Your task to perform on an android device: Search for good BBQ restaurants Image 0: 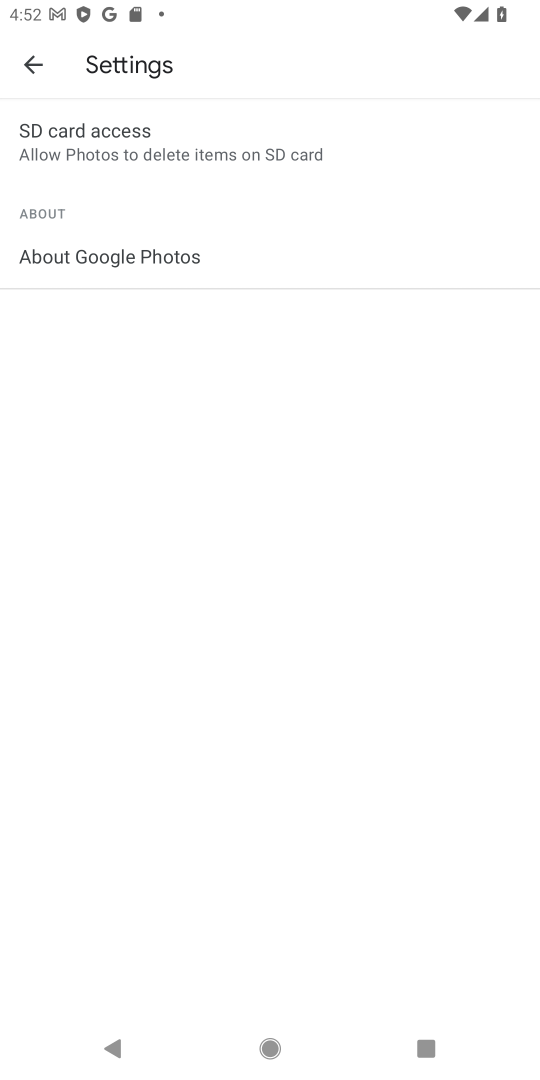
Step 0: press home button
Your task to perform on an android device: Search for good BBQ restaurants Image 1: 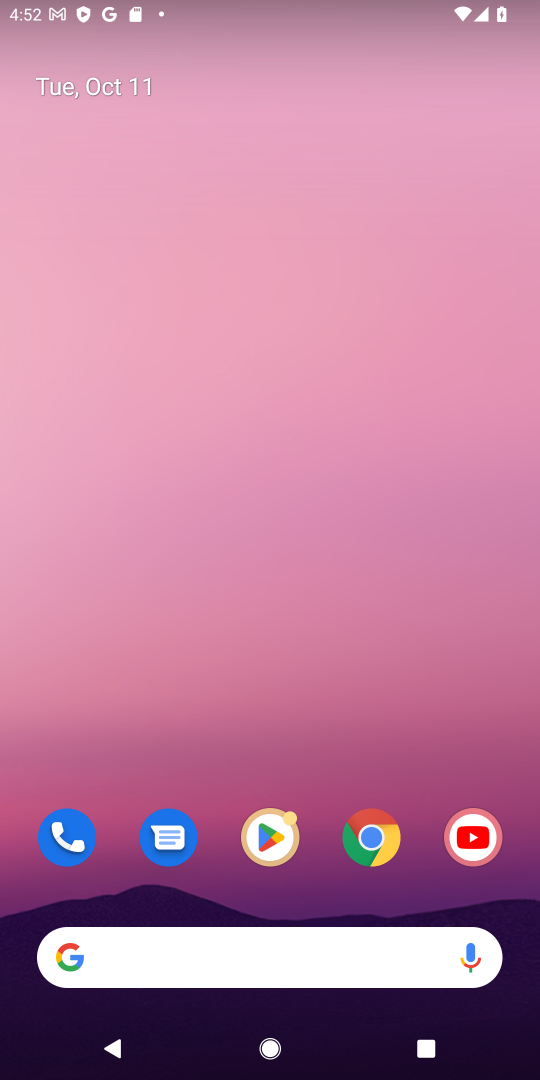
Step 1: drag from (269, 930) to (489, 313)
Your task to perform on an android device: Search for good BBQ restaurants Image 2: 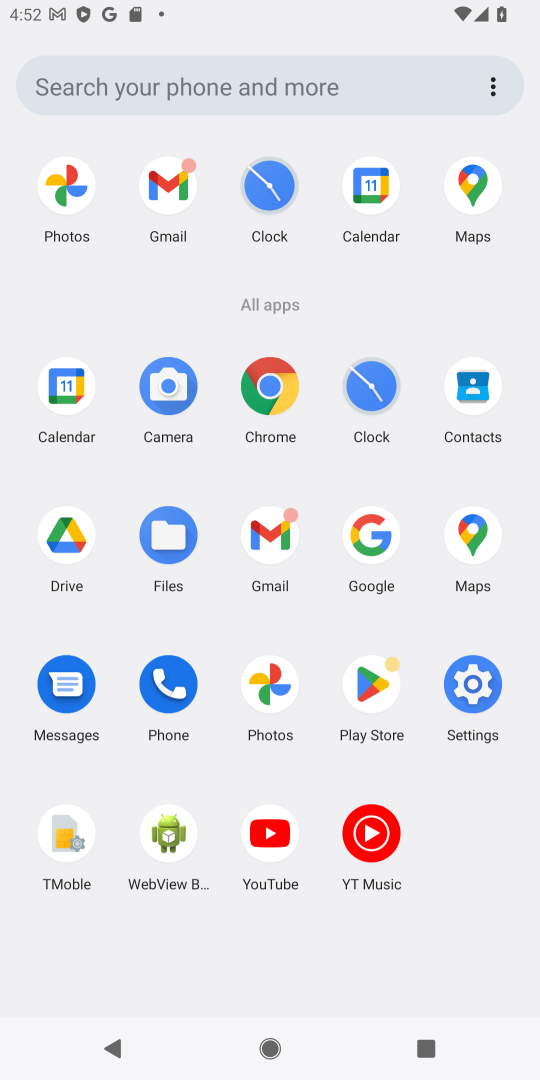
Step 2: click (297, 386)
Your task to perform on an android device: Search for good BBQ restaurants Image 3: 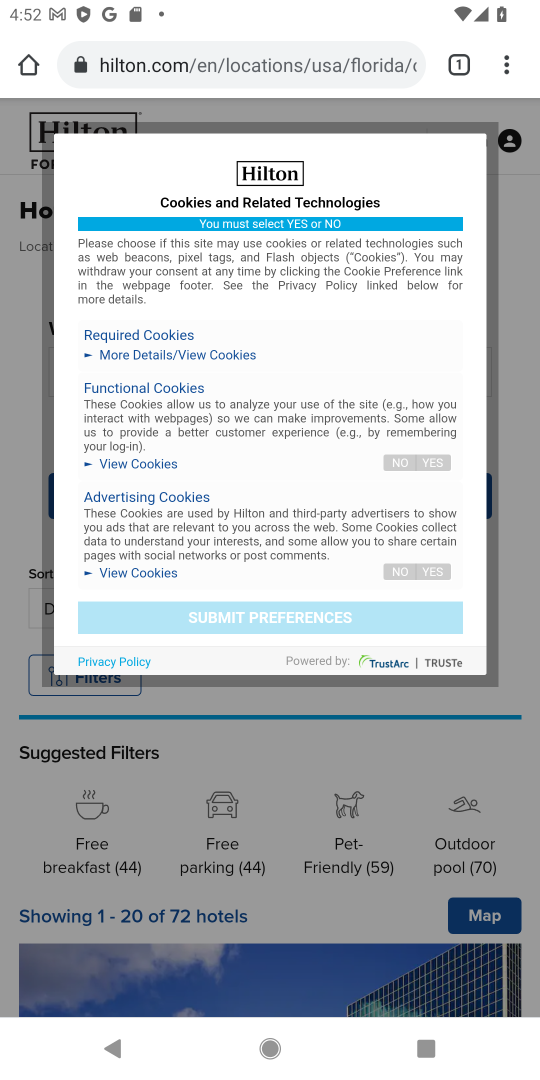
Step 3: press back button
Your task to perform on an android device: Search for good BBQ restaurants Image 4: 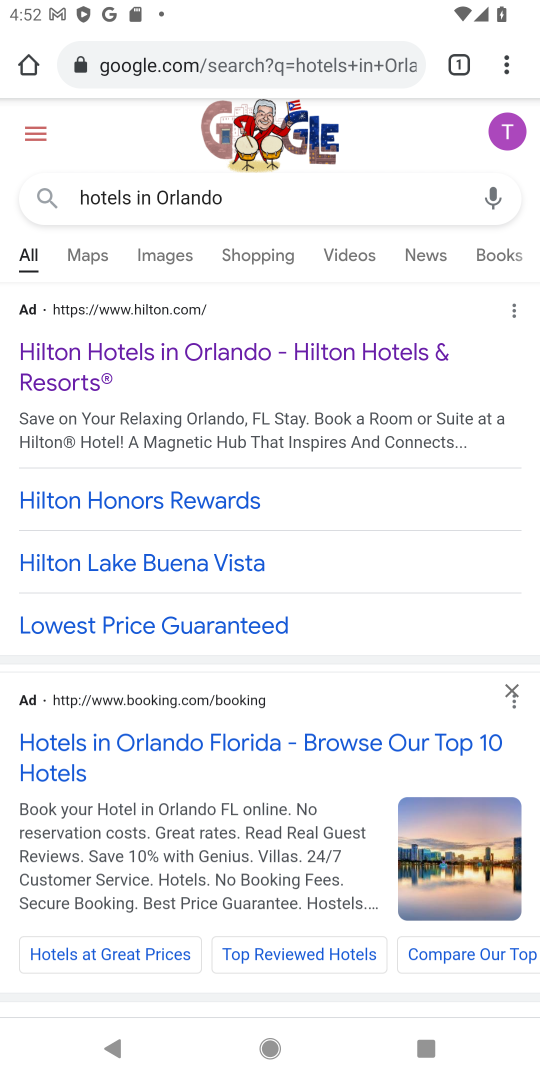
Step 4: click (272, 62)
Your task to perform on an android device: Search for good BBQ restaurants Image 5: 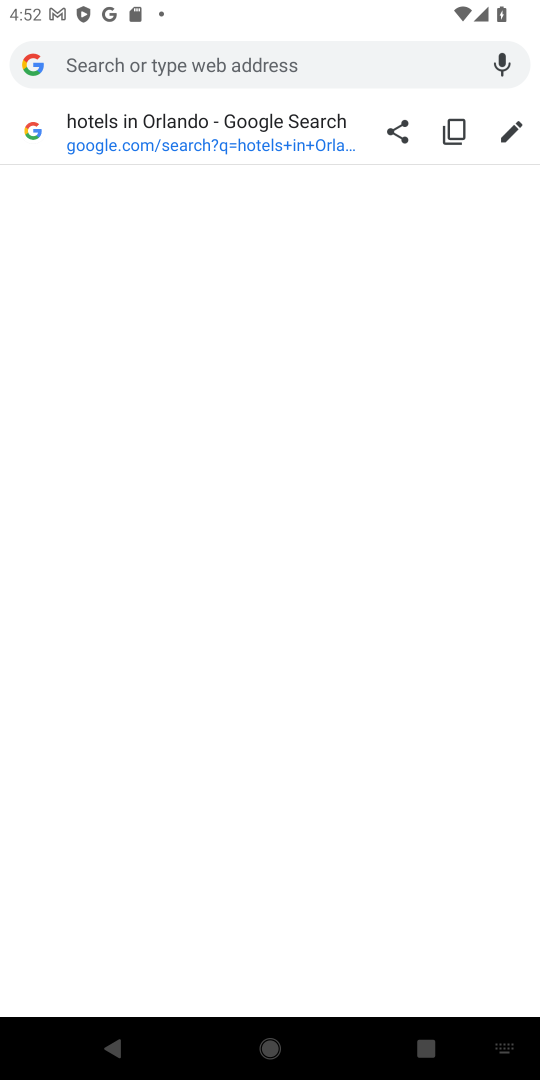
Step 5: drag from (296, 1054) to (539, 776)
Your task to perform on an android device: Search for good BBQ restaurants Image 6: 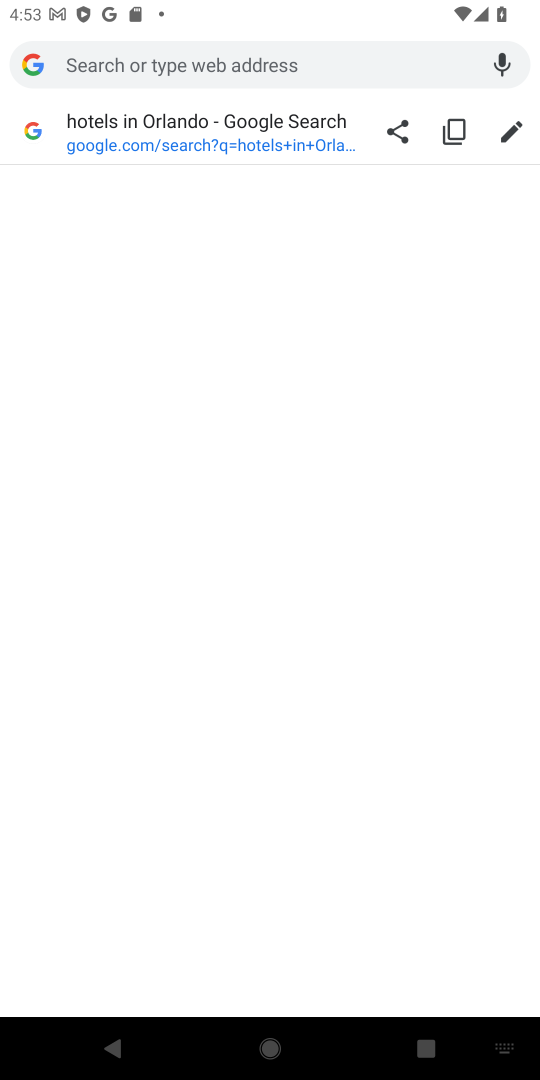
Step 6: type "good BBQ restaurants"
Your task to perform on an android device: Search for good BBQ restaurants Image 7: 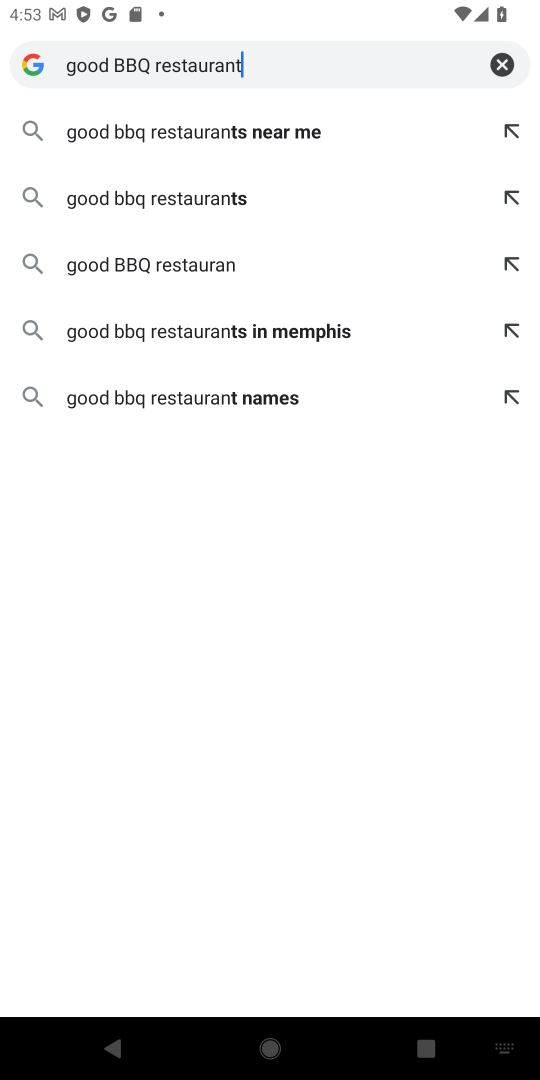
Step 7: press enter
Your task to perform on an android device: Search for good BBQ restaurants Image 8: 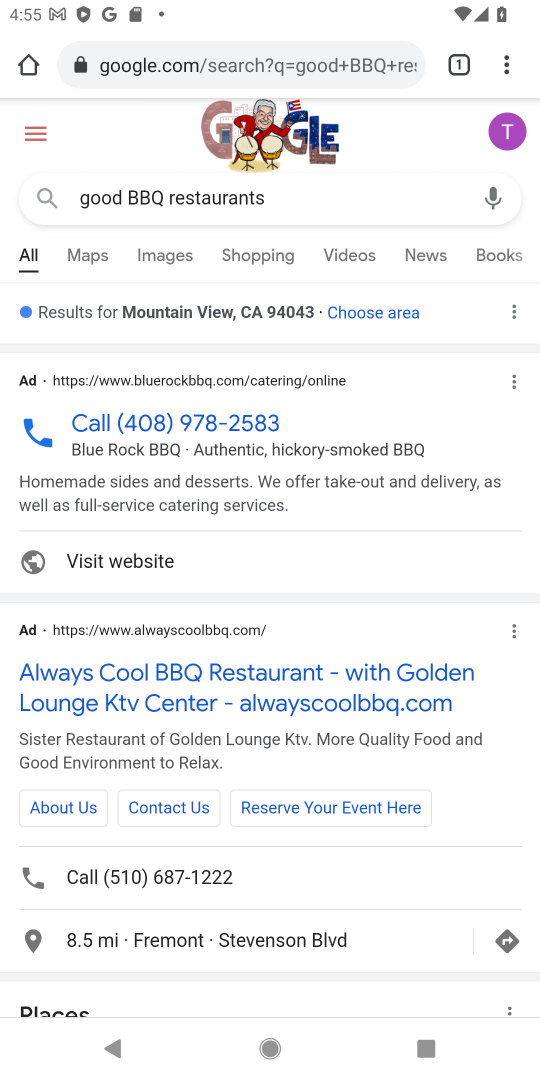
Step 8: task complete